Your task to perform on an android device: change text size in settings app Image 0: 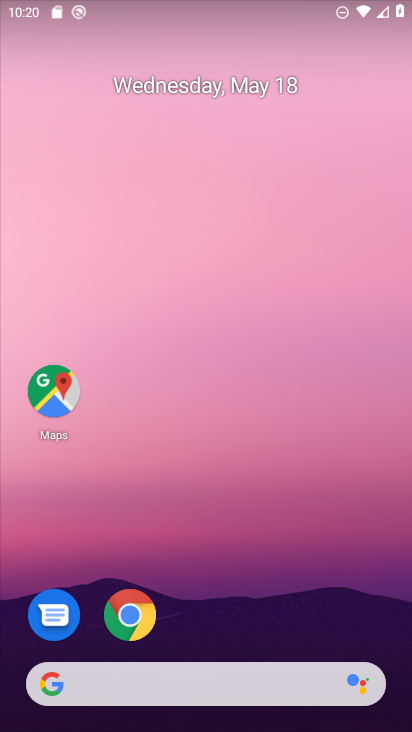
Step 0: drag from (244, 606) to (204, 68)
Your task to perform on an android device: change text size in settings app Image 1: 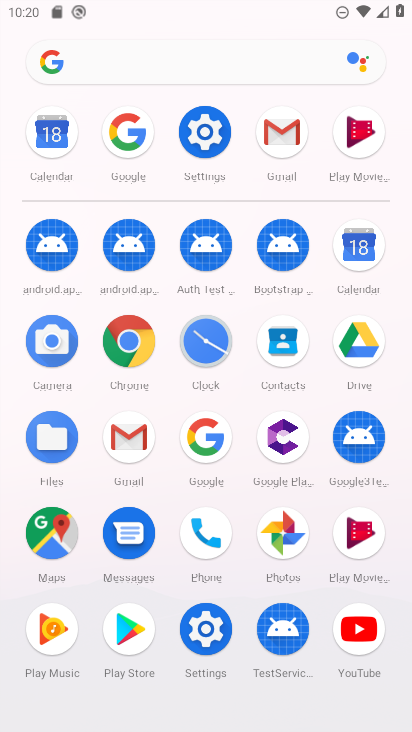
Step 1: click (206, 630)
Your task to perform on an android device: change text size in settings app Image 2: 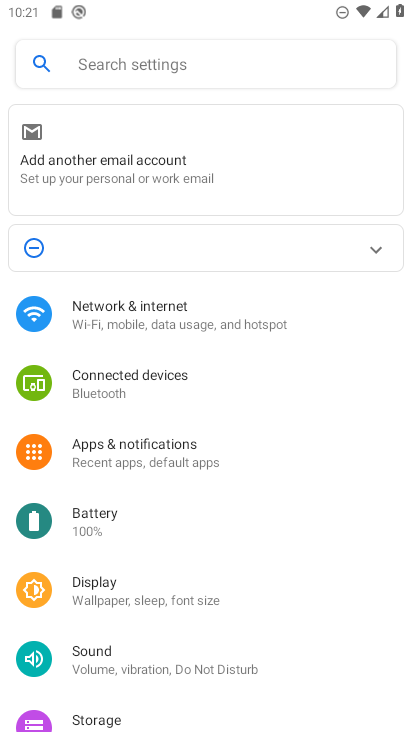
Step 2: drag from (185, 560) to (208, 193)
Your task to perform on an android device: change text size in settings app Image 3: 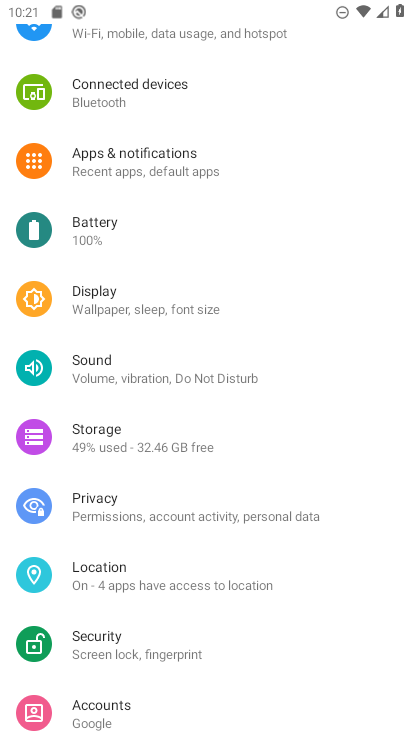
Step 3: click (184, 289)
Your task to perform on an android device: change text size in settings app Image 4: 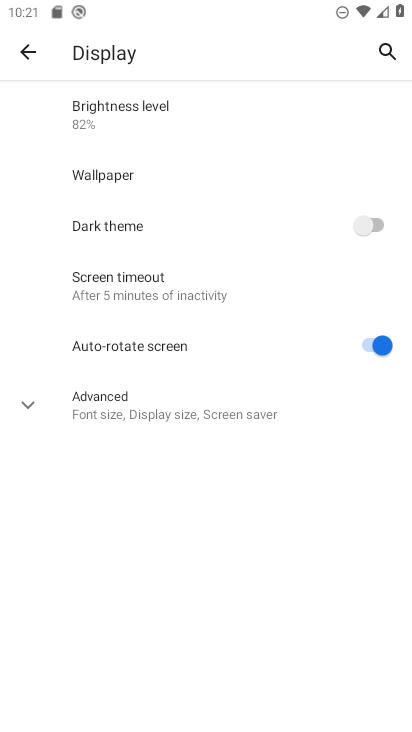
Step 4: click (115, 392)
Your task to perform on an android device: change text size in settings app Image 5: 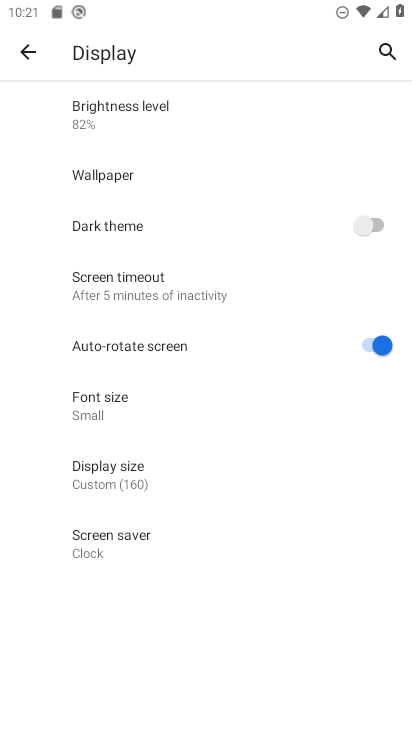
Step 5: click (175, 399)
Your task to perform on an android device: change text size in settings app Image 6: 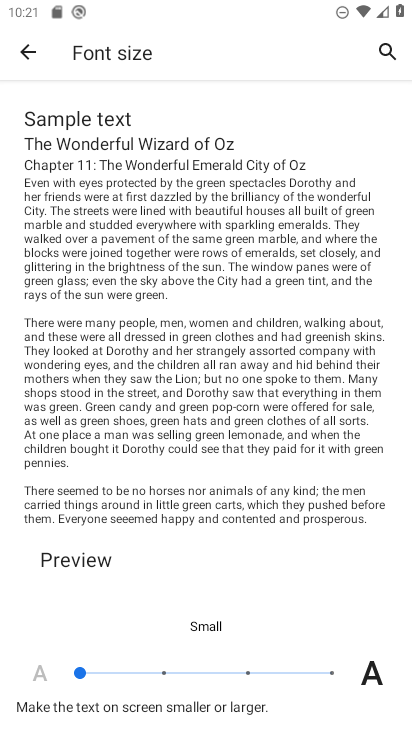
Step 6: task complete